Your task to perform on an android device: Open CNN.com Image 0: 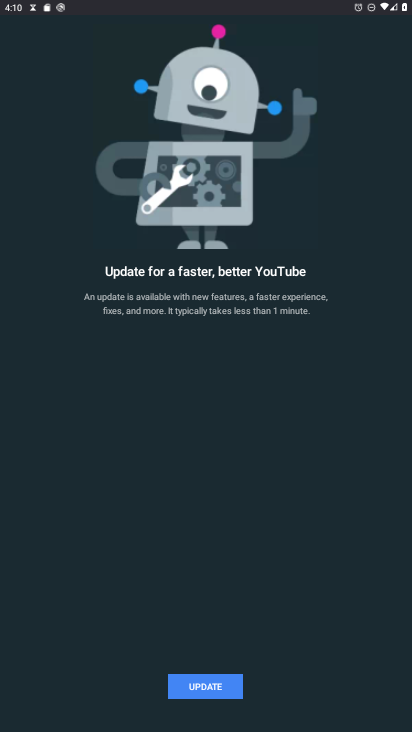
Step 0: drag from (147, 525) to (155, 133)
Your task to perform on an android device: Open CNN.com Image 1: 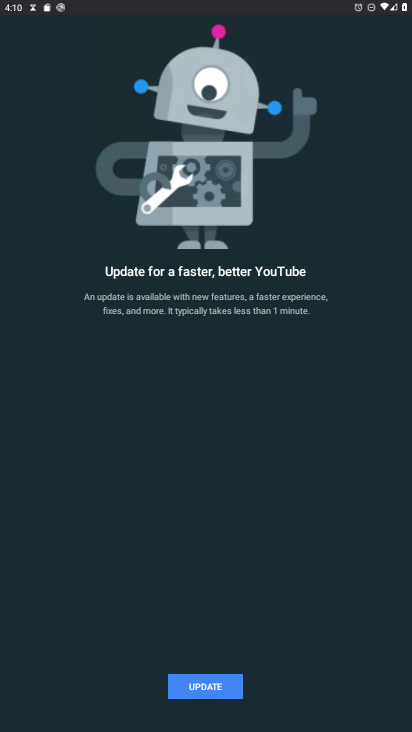
Step 1: press back button
Your task to perform on an android device: Open CNN.com Image 2: 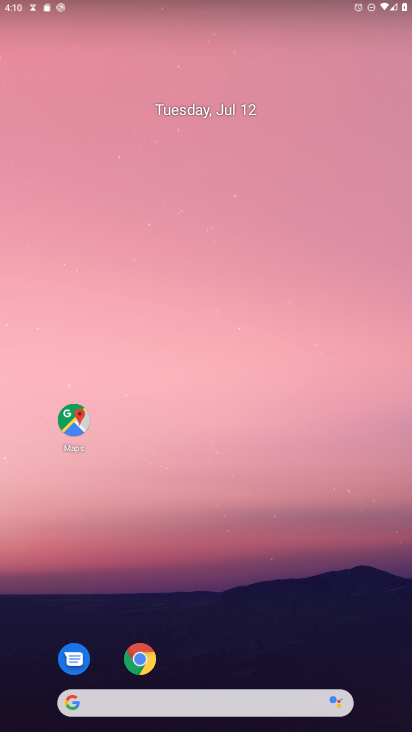
Step 2: click (140, 662)
Your task to perform on an android device: Open CNN.com Image 3: 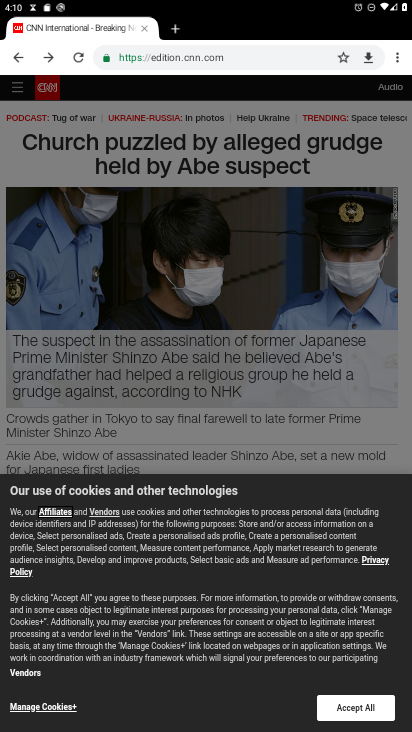
Step 3: click (12, 59)
Your task to perform on an android device: Open CNN.com Image 4: 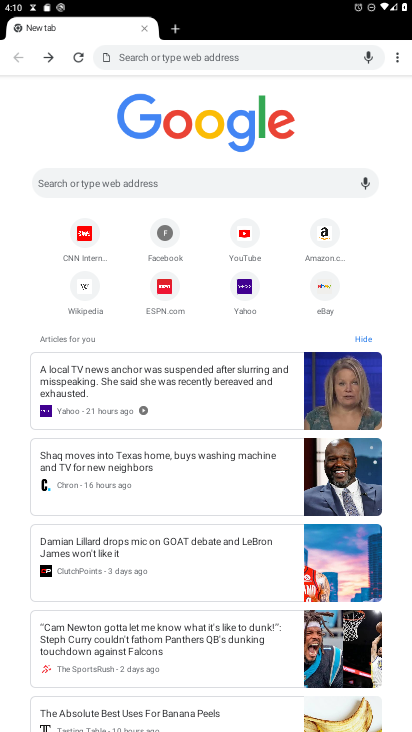
Step 4: click (250, 183)
Your task to perform on an android device: Open CNN.com Image 5: 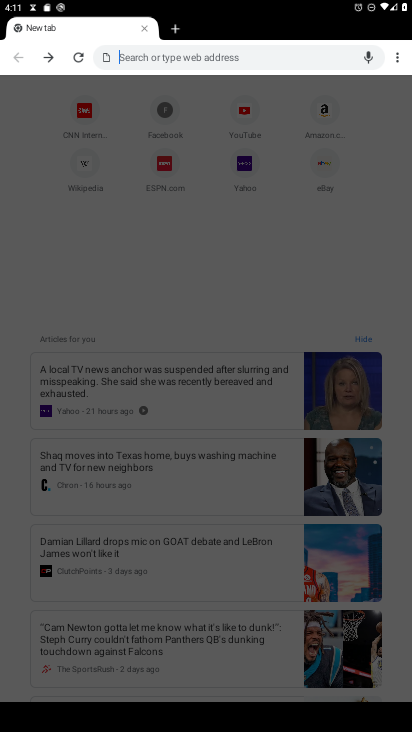
Step 5: type "www.cnn.com"
Your task to perform on an android device: Open CNN.com Image 6: 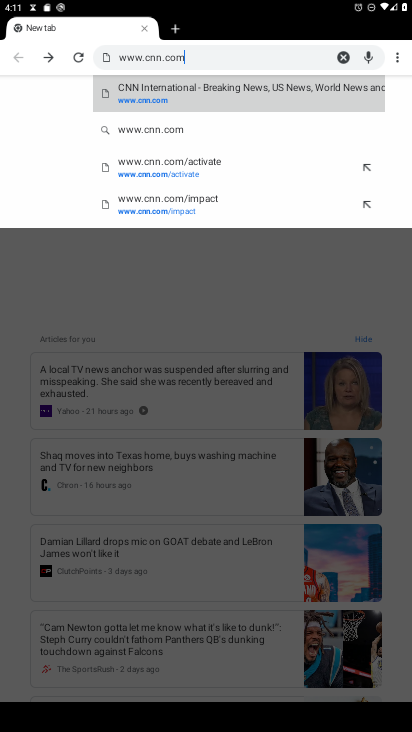
Step 6: click (143, 93)
Your task to perform on an android device: Open CNN.com Image 7: 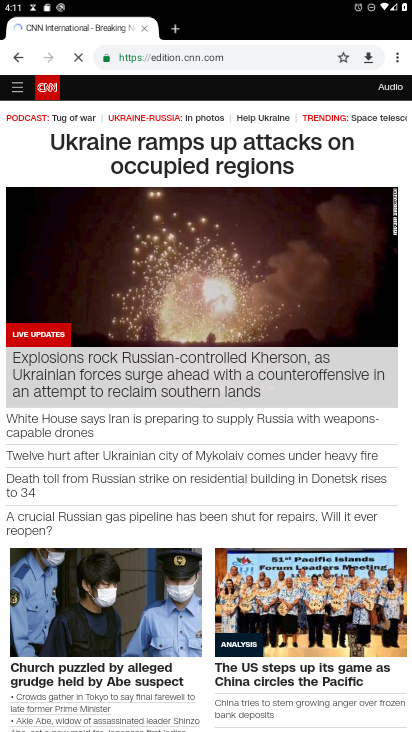
Step 7: task complete